Your task to perform on an android device: toggle wifi Image 0: 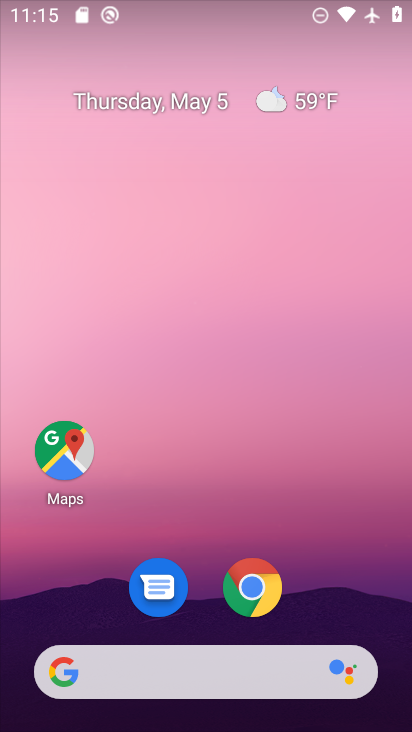
Step 0: drag from (343, 595) to (285, 9)
Your task to perform on an android device: toggle wifi Image 1: 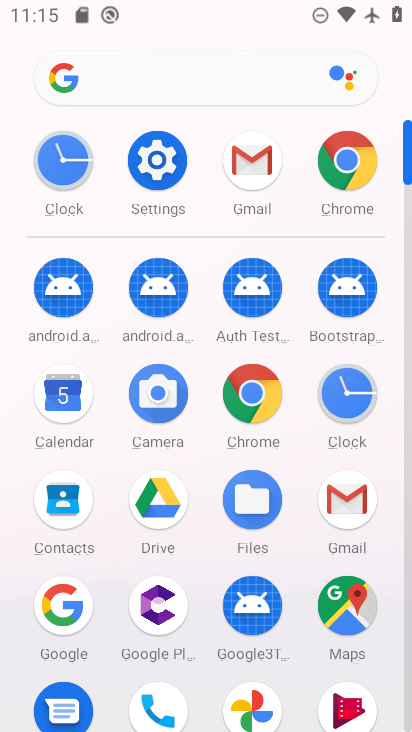
Step 1: click (156, 157)
Your task to perform on an android device: toggle wifi Image 2: 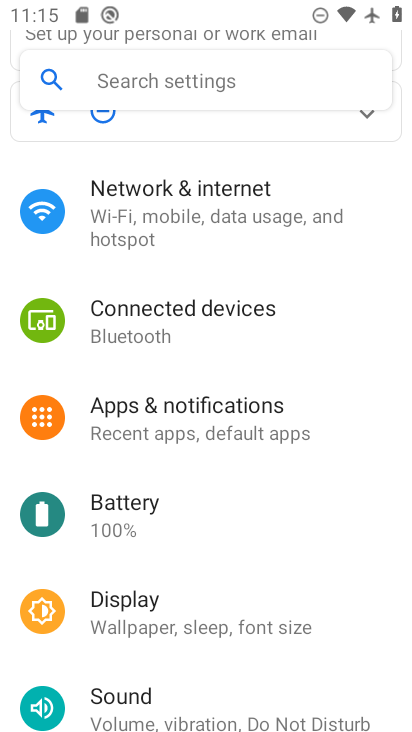
Step 2: drag from (278, 587) to (289, 141)
Your task to perform on an android device: toggle wifi Image 3: 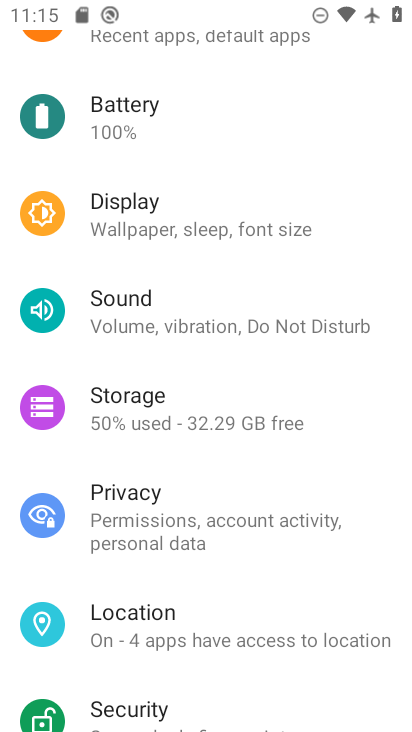
Step 3: drag from (287, 178) to (308, 639)
Your task to perform on an android device: toggle wifi Image 4: 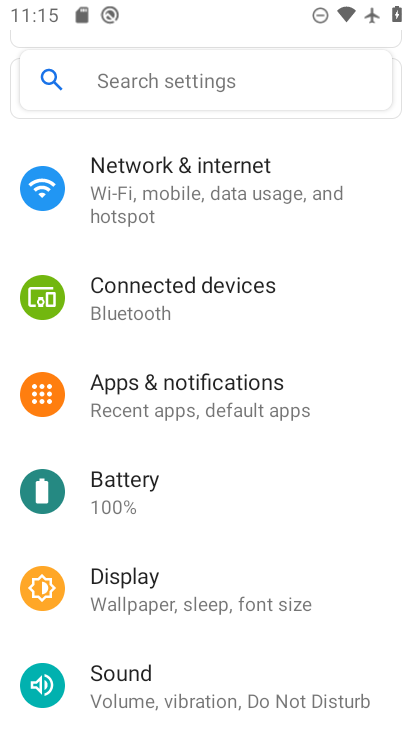
Step 4: click (180, 188)
Your task to perform on an android device: toggle wifi Image 5: 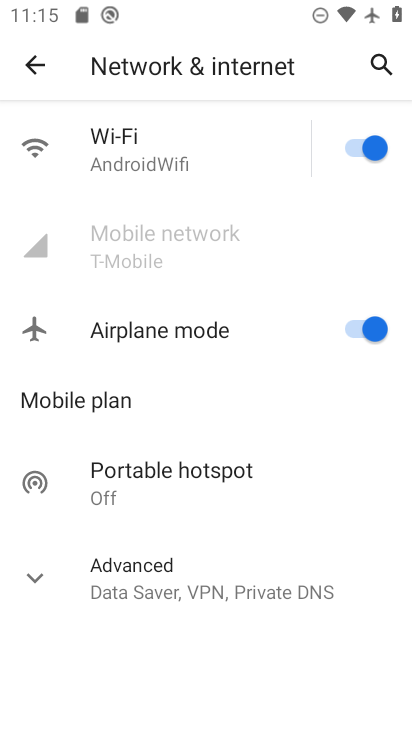
Step 5: click (155, 152)
Your task to perform on an android device: toggle wifi Image 6: 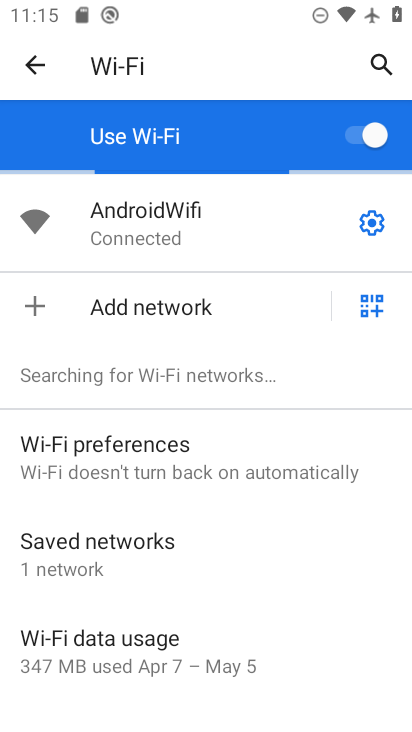
Step 6: click (33, 64)
Your task to perform on an android device: toggle wifi Image 7: 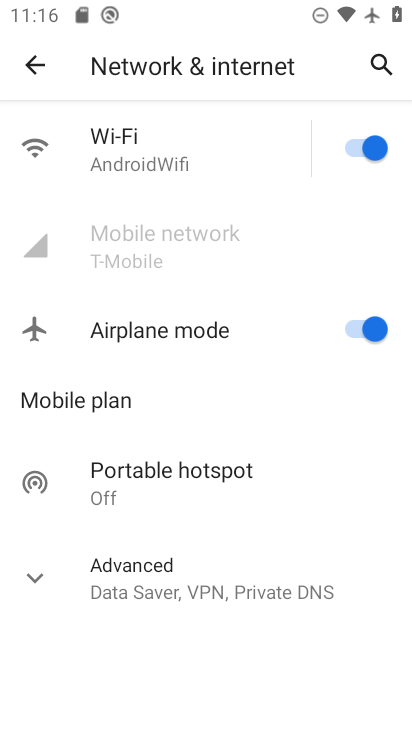
Step 7: click (360, 146)
Your task to perform on an android device: toggle wifi Image 8: 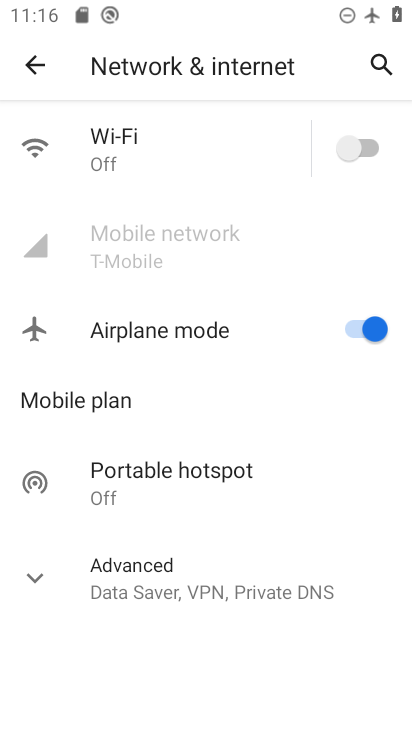
Step 8: task complete